Your task to perform on an android device: open chrome and create a bookmark for the current page Image 0: 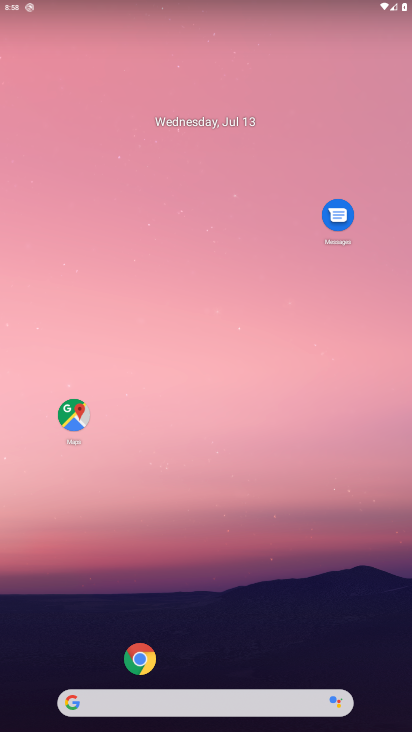
Step 0: click (135, 136)
Your task to perform on an android device: open chrome and create a bookmark for the current page Image 1: 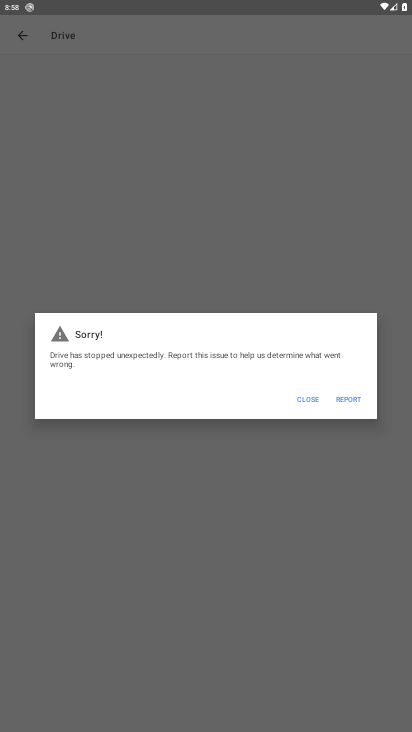
Step 1: press home button
Your task to perform on an android device: open chrome and create a bookmark for the current page Image 2: 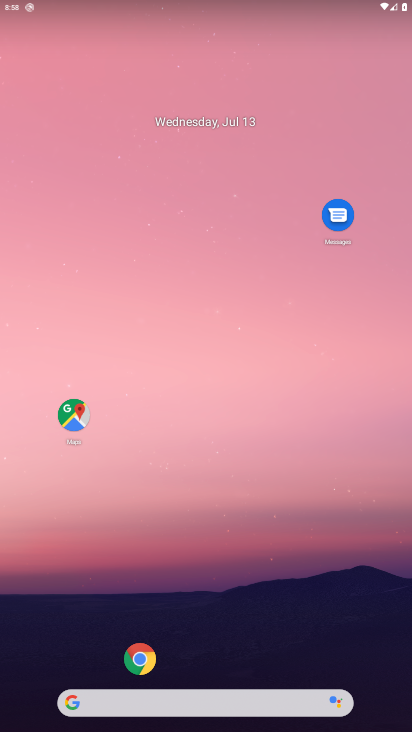
Step 2: click (141, 654)
Your task to perform on an android device: open chrome and create a bookmark for the current page Image 3: 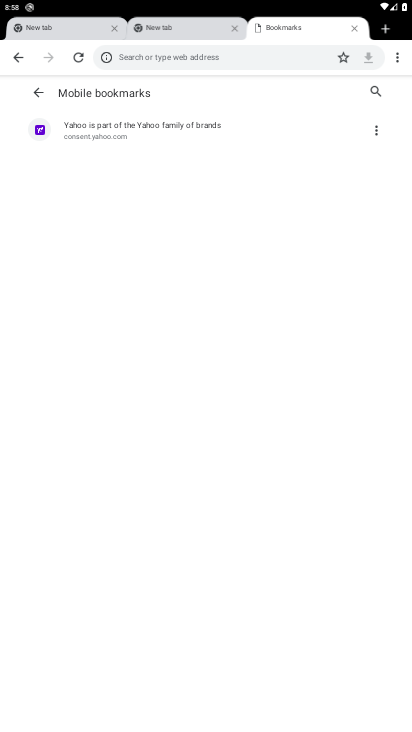
Step 3: click (342, 58)
Your task to perform on an android device: open chrome and create a bookmark for the current page Image 4: 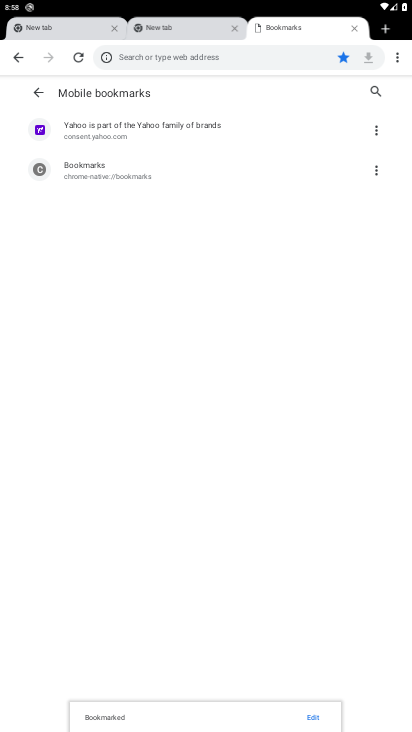
Step 4: task complete